Your task to perform on an android device: What's the weather? Image 0: 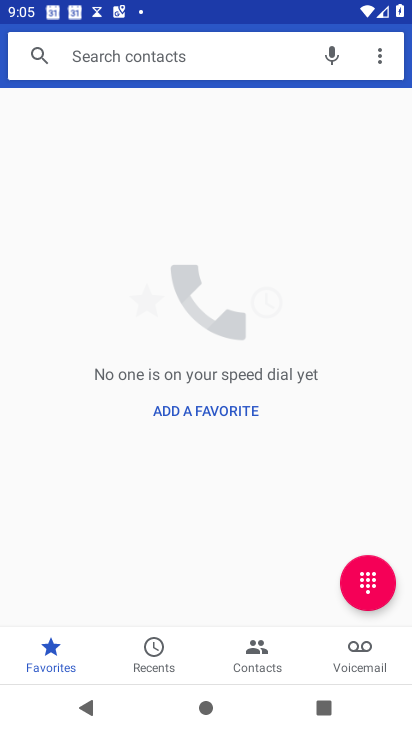
Step 0: press home button
Your task to perform on an android device: What's the weather? Image 1: 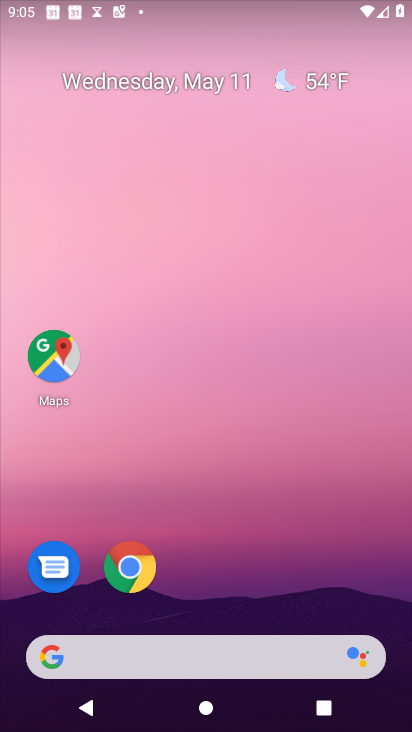
Step 1: click (326, 85)
Your task to perform on an android device: What's the weather? Image 2: 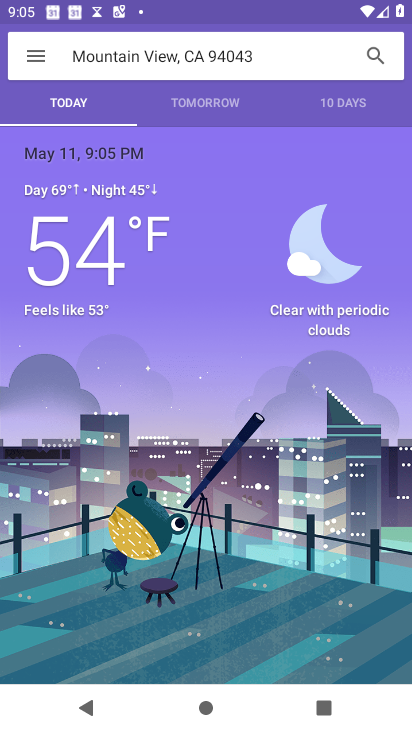
Step 2: task complete